Your task to perform on an android device: turn off improve location accuracy Image 0: 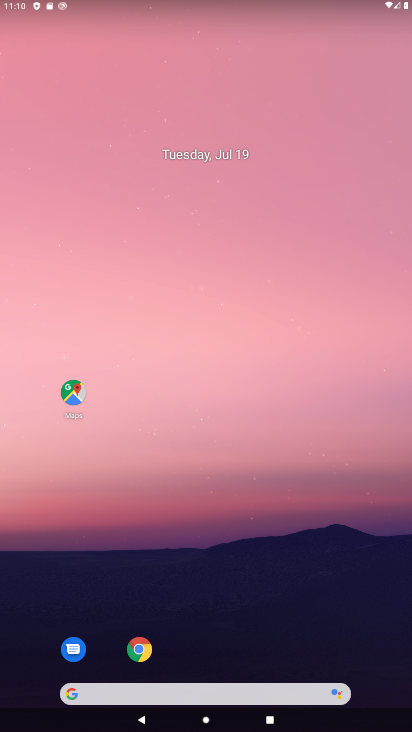
Step 0: drag from (337, 662) to (288, 107)
Your task to perform on an android device: turn off improve location accuracy Image 1: 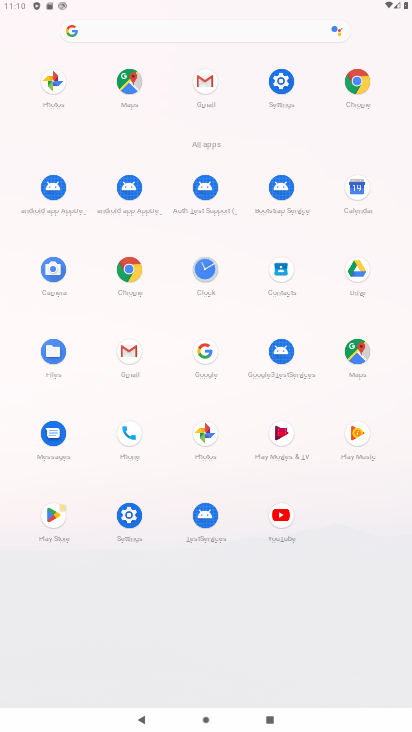
Step 1: click (280, 75)
Your task to perform on an android device: turn off improve location accuracy Image 2: 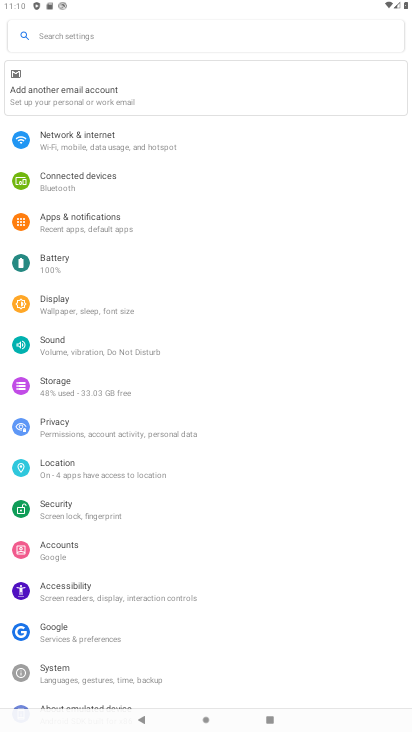
Step 2: click (106, 474)
Your task to perform on an android device: turn off improve location accuracy Image 3: 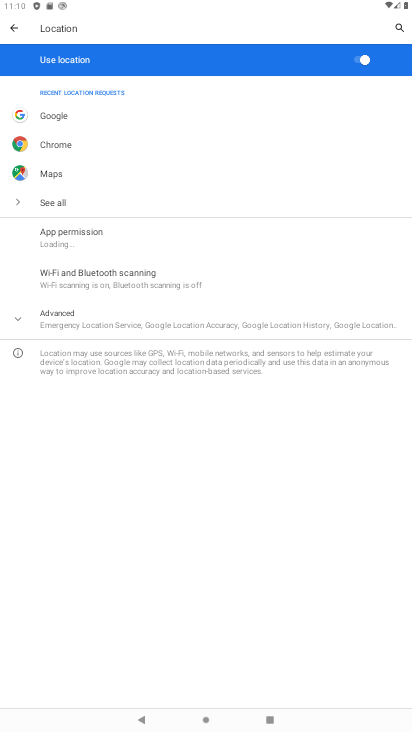
Step 3: click (367, 58)
Your task to perform on an android device: turn off improve location accuracy Image 4: 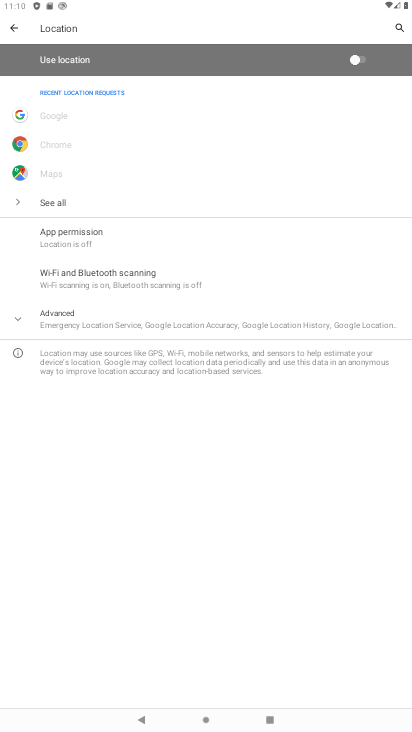
Step 4: task complete